Your task to perform on an android device: see creations saved in the google photos Image 0: 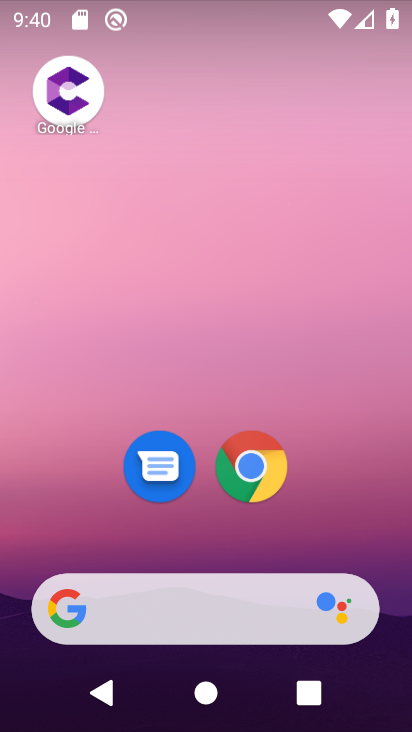
Step 0: drag from (301, 497) to (256, 126)
Your task to perform on an android device: see creations saved in the google photos Image 1: 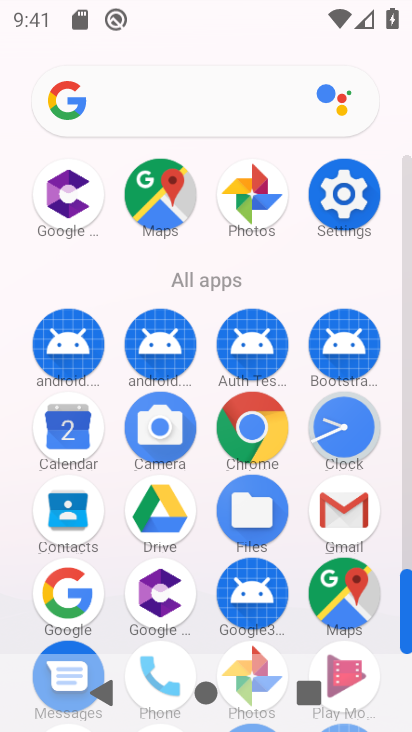
Step 1: drag from (180, 545) to (196, 269)
Your task to perform on an android device: see creations saved in the google photos Image 2: 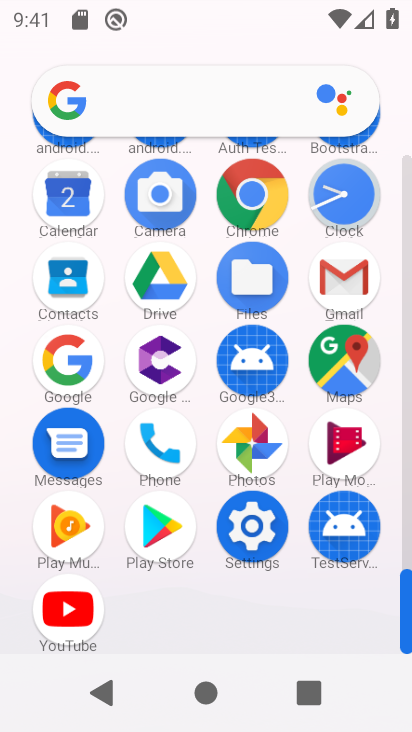
Step 2: click (240, 447)
Your task to perform on an android device: see creations saved in the google photos Image 3: 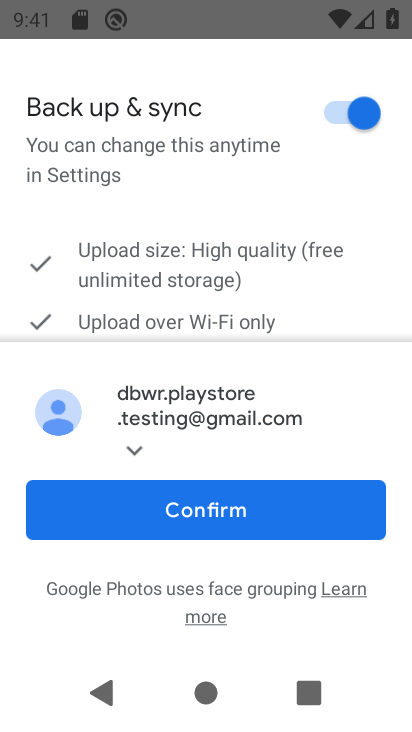
Step 3: click (200, 506)
Your task to perform on an android device: see creations saved in the google photos Image 4: 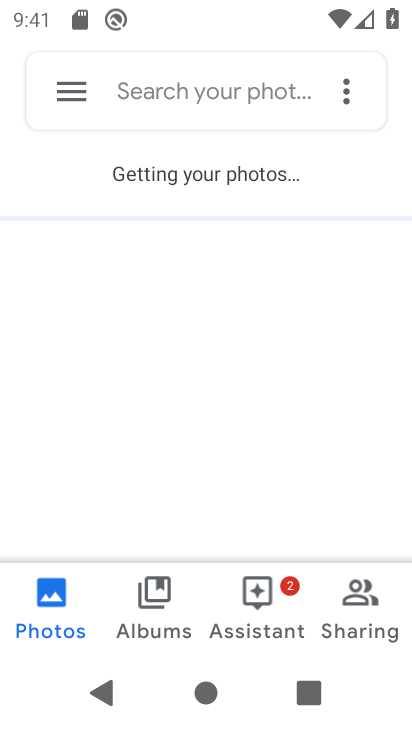
Step 4: click (165, 589)
Your task to perform on an android device: see creations saved in the google photos Image 5: 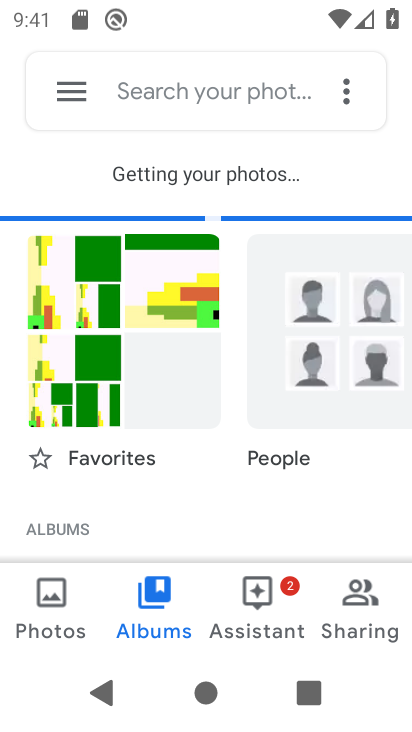
Step 5: click (70, 288)
Your task to perform on an android device: see creations saved in the google photos Image 6: 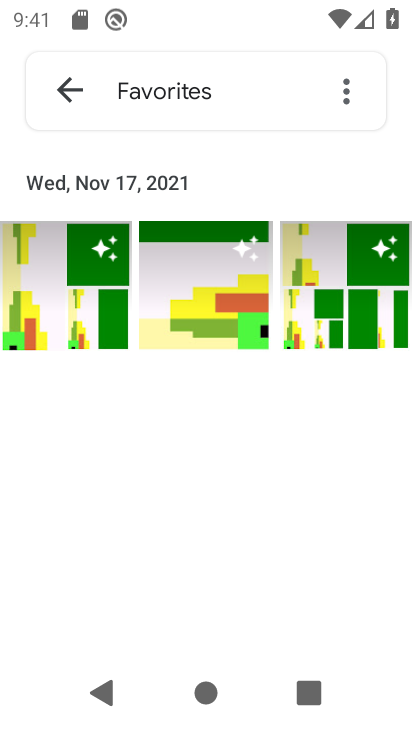
Step 6: task complete